Your task to perform on an android device: turn vacation reply on in the gmail app Image 0: 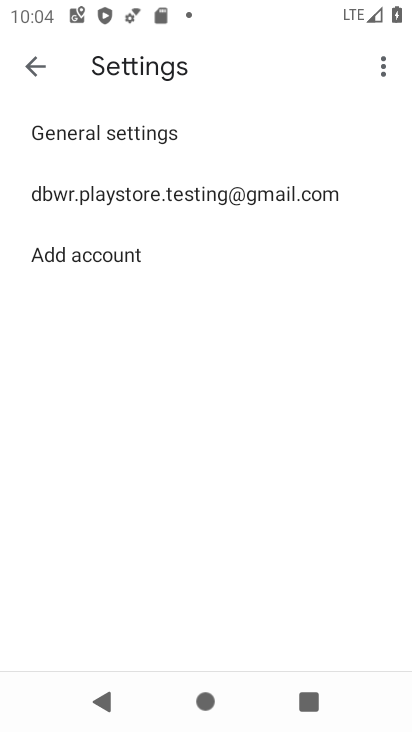
Step 0: press home button
Your task to perform on an android device: turn vacation reply on in the gmail app Image 1: 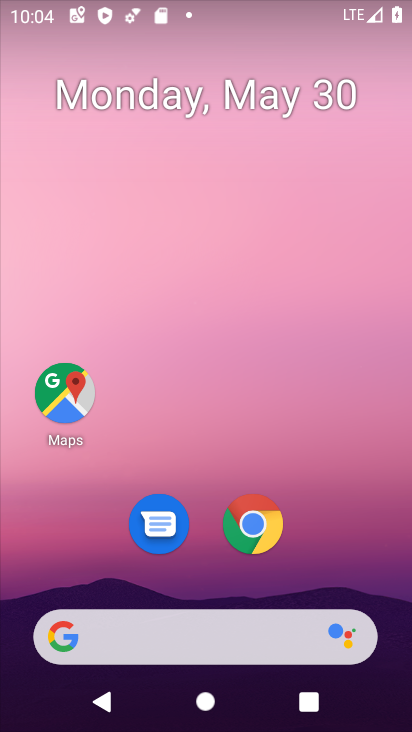
Step 1: drag from (321, 548) to (297, 20)
Your task to perform on an android device: turn vacation reply on in the gmail app Image 2: 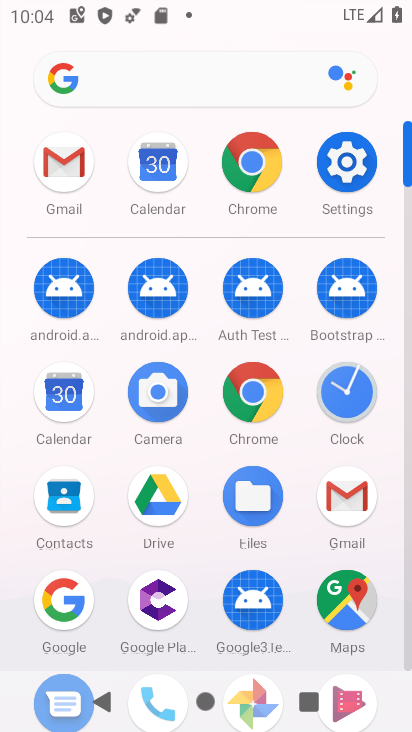
Step 2: click (358, 486)
Your task to perform on an android device: turn vacation reply on in the gmail app Image 3: 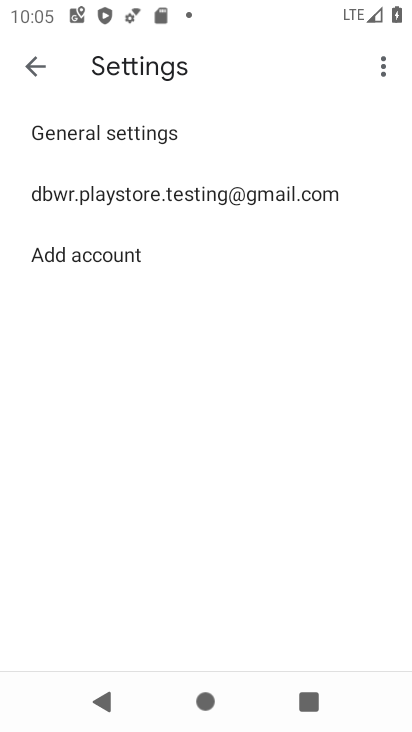
Step 3: click (247, 196)
Your task to perform on an android device: turn vacation reply on in the gmail app Image 4: 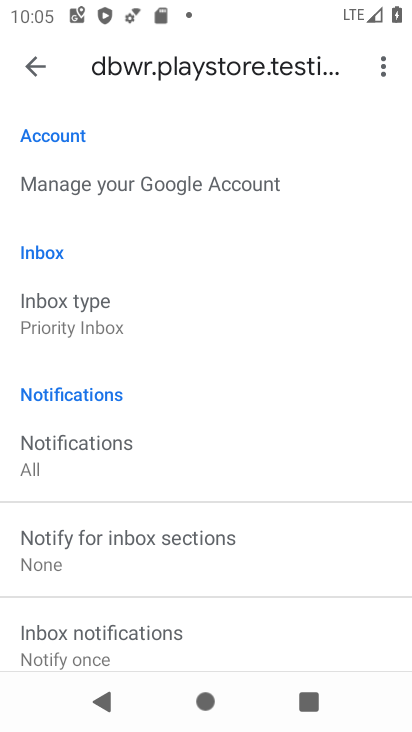
Step 4: drag from (295, 604) to (221, 0)
Your task to perform on an android device: turn vacation reply on in the gmail app Image 5: 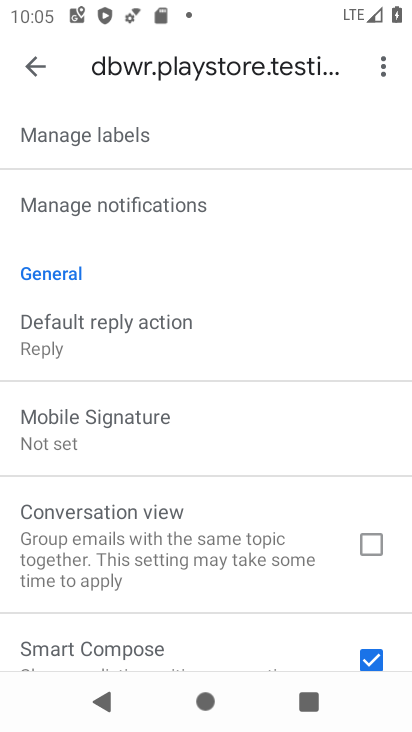
Step 5: drag from (266, 503) to (202, 49)
Your task to perform on an android device: turn vacation reply on in the gmail app Image 6: 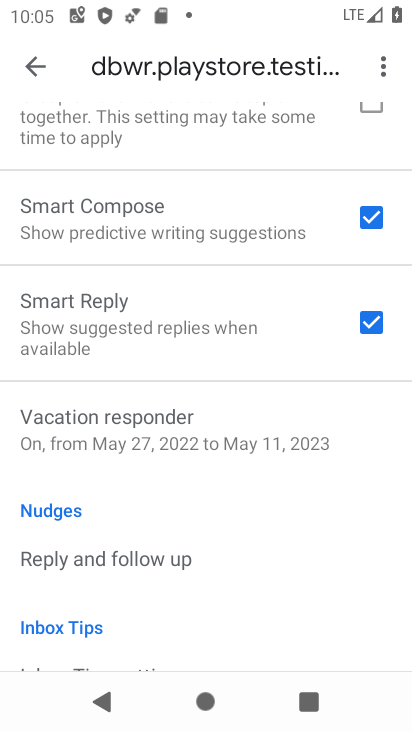
Step 6: click (246, 419)
Your task to perform on an android device: turn vacation reply on in the gmail app Image 7: 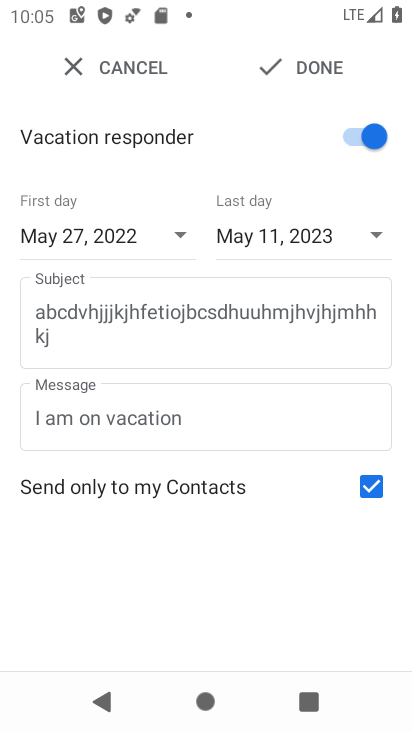
Step 7: task complete